Your task to perform on an android device: stop showing notifications on the lock screen Image 0: 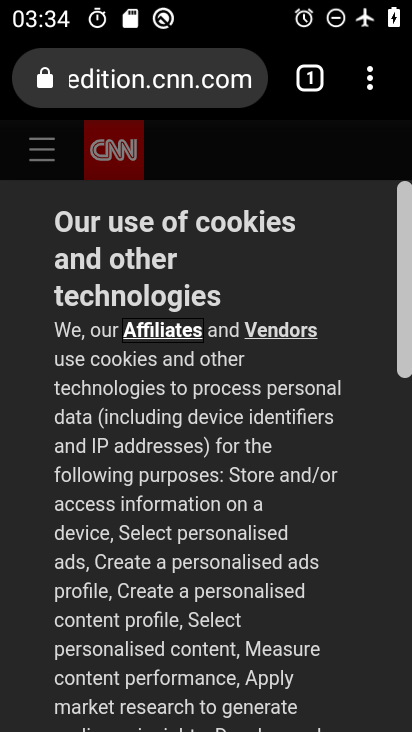
Step 0: press home button
Your task to perform on an android device: stop showing notifications on the lock screen Image 1: 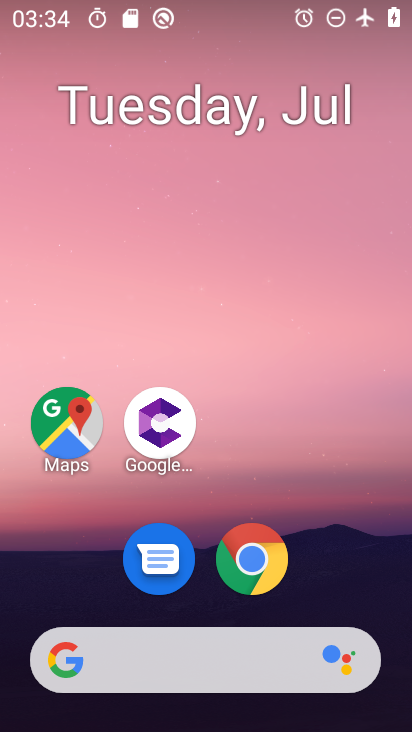
Step 1: drag from (371, 563) to (363, 230)
Your task to perform on an android device: stop showing notifications on the lock screen Image 2: 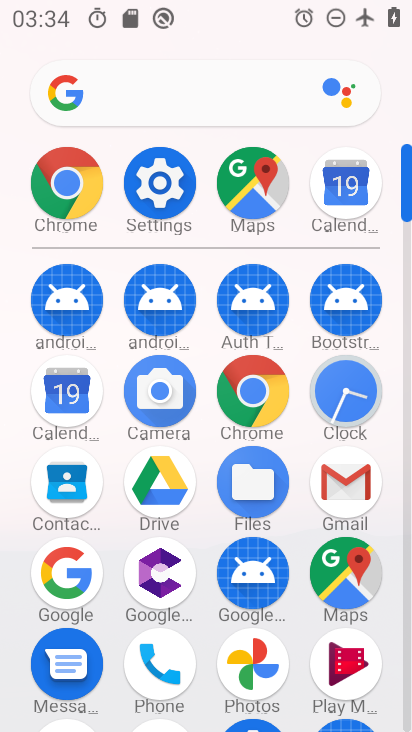
Step 2: click (166, 195)
Your task to perform on an android device: stop showing notifications on the lock screen Image 3: 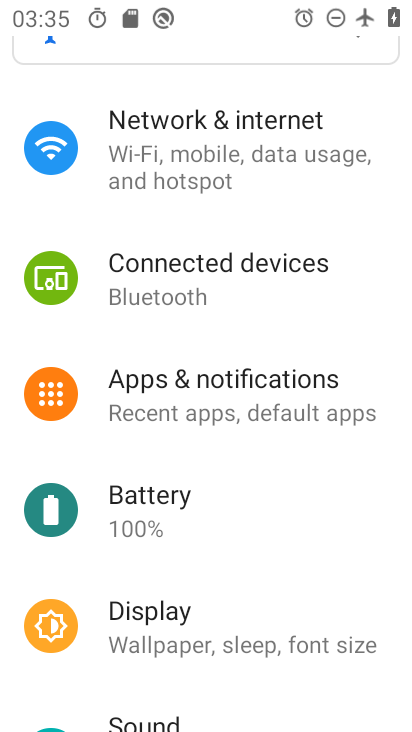
Step 3: drag from (349, 525) to (354, 431)
Your task to perform on an android device: stop showing notifications on the lock screen Image 4: 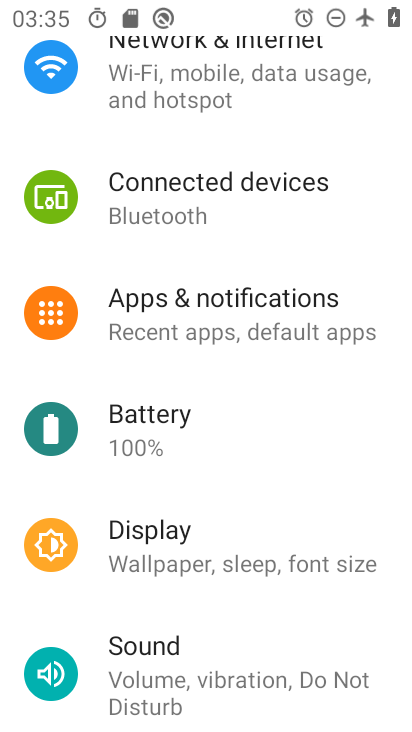
Step 4: drag from (366, 509) to (361, 412)
Your task to perform on an android device: stop showing notifications on the lock screen Image 5: 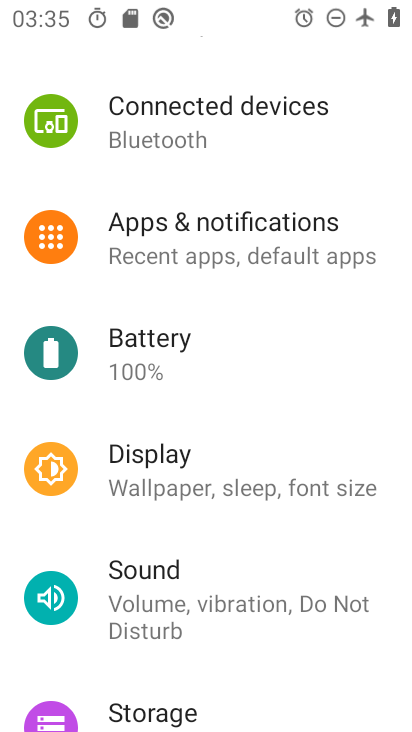
Step 5: drag from (358, 555) to (352, 463)
Your task to perform on an android device: stop showing notifications on the lock screen Image 6: 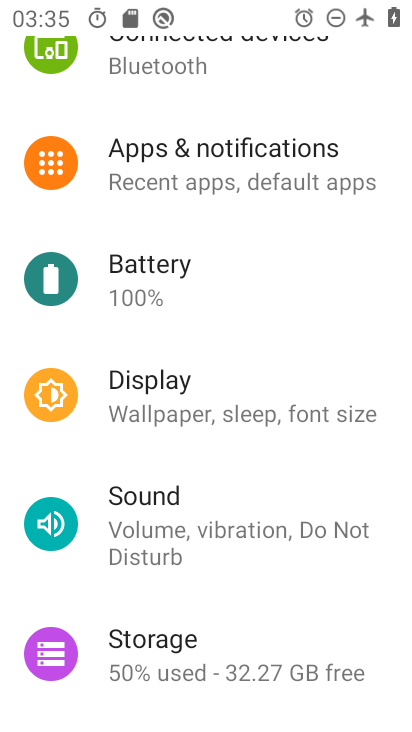
Step 6: drag from (340, 589) to (341, 468)
Your task to perform on an android device: stop showing notifications on the lock screen Image 7: 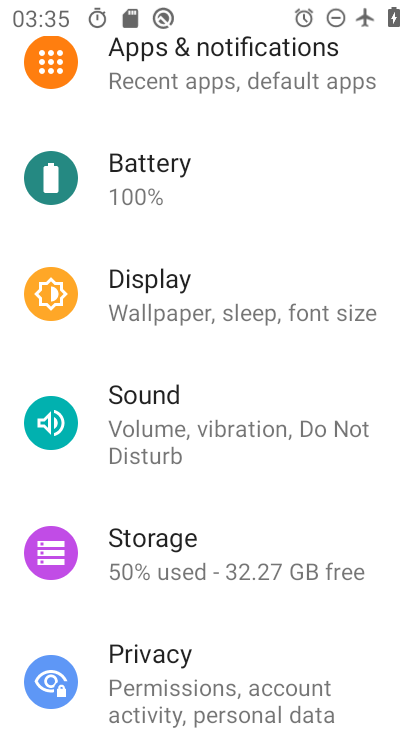
Step 7: drag from (343, 250) to (343, 481)
Your task to perform on an android device: stop showing notifications on the lock screen Image 8: 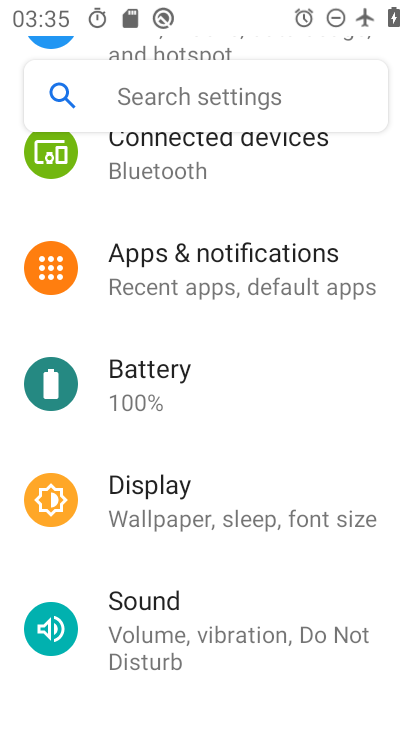
Step 8: click (331, 289)
Your task to perform on an android device: stop showing notifications on the lock screen Image 9: 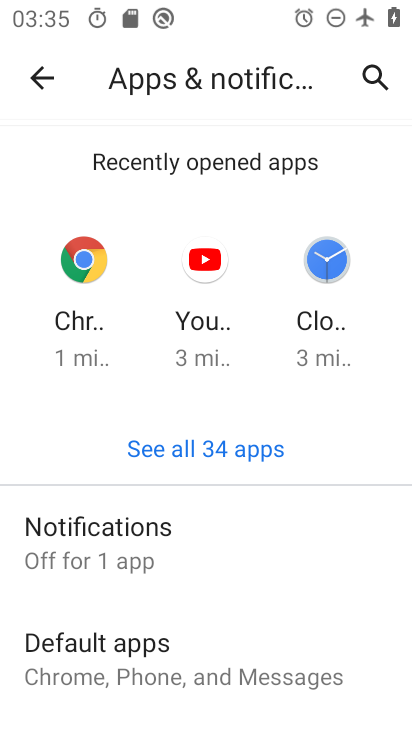
Step 9: click (215, 555)
Your task to perform on an android device: stop showing notifications on the lock screen Image 10: 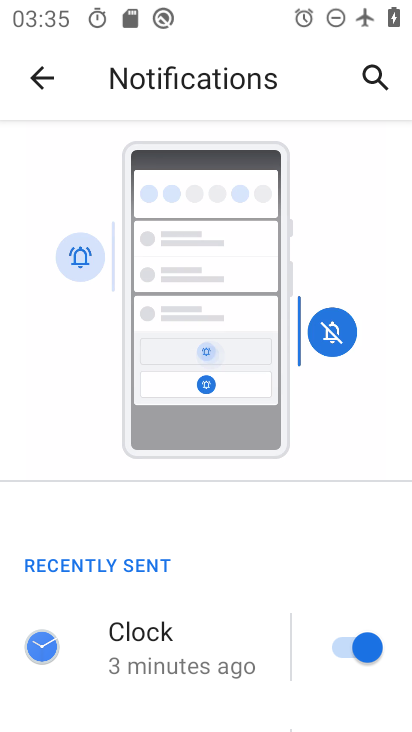
Step 10: drag from (222, 608) to (259, 378)
Your task to perform on an android device: stop showing notifications on the lock screen Image 11: 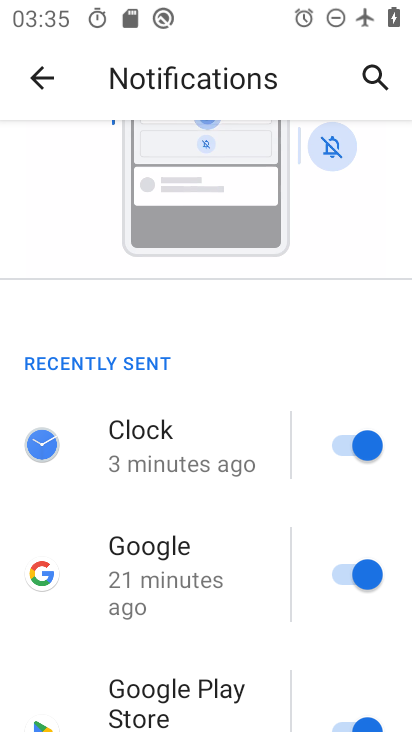
Step 11: drag from (251, 559) to (272, 441)
Your task to perform on an android device: stop showing notifications on the lock screen Image 12: 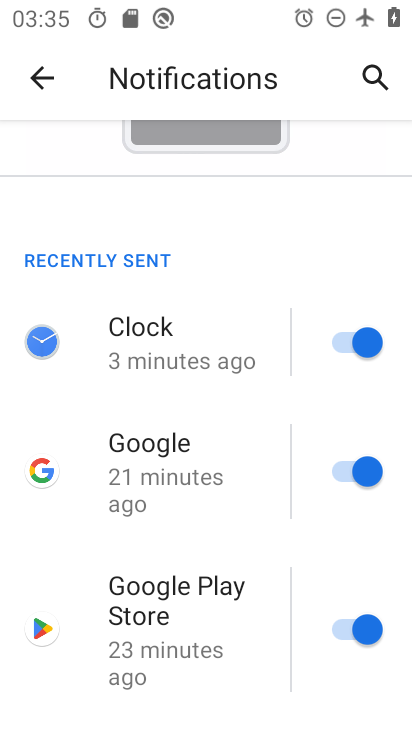
Step 12: drag from (270, 605) to (270, 507)
Your task to perform on an android device: stop showing notifications on the lock screen Image 13: 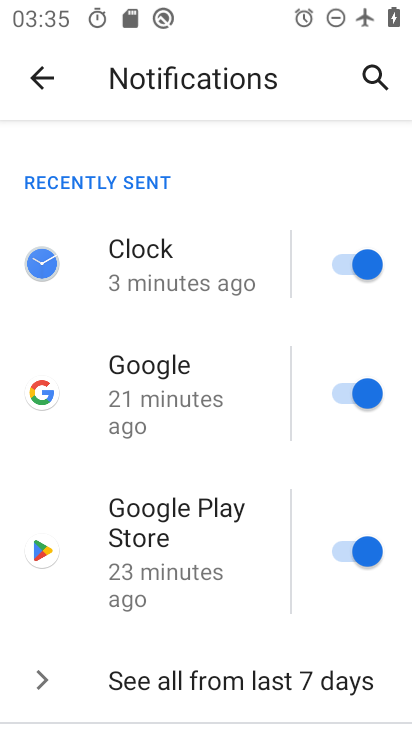
Step 13: drag from (235, 633) to (235, 491)
Your task to perform on an android device: stop showing notifications on the lock screen Image 14: 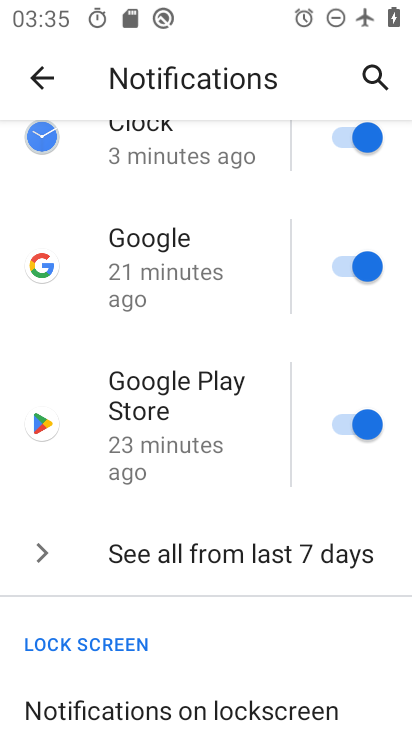
Step 14: drag from (243, 590) to (261, 458)
Your task to perform on an android device: stop showing notifications on the lock screen Image 15: 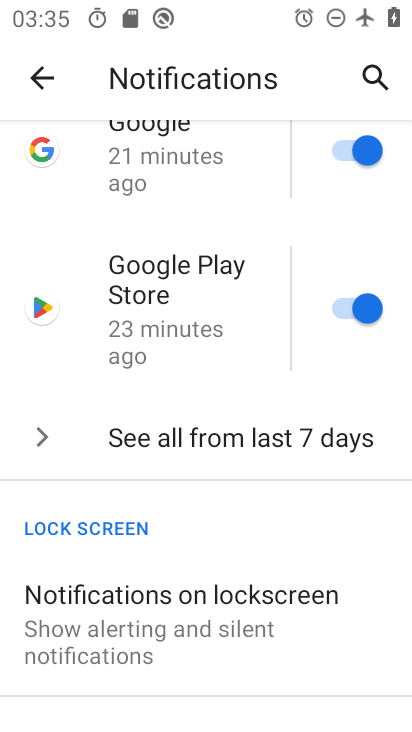
Step 15: click (265, 601)
Your task to perform on an android device: stop showing notifications on the lock screen Image 16: 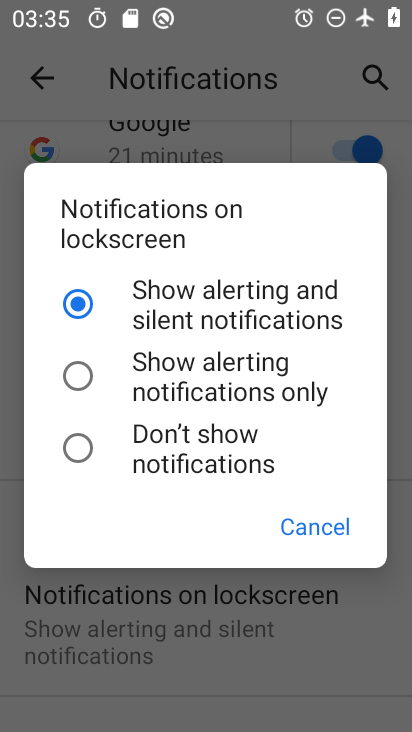
Step 16: click (232, 448)
Your task to perform on an android device: stop showing notifications on the lock screen Image 17: 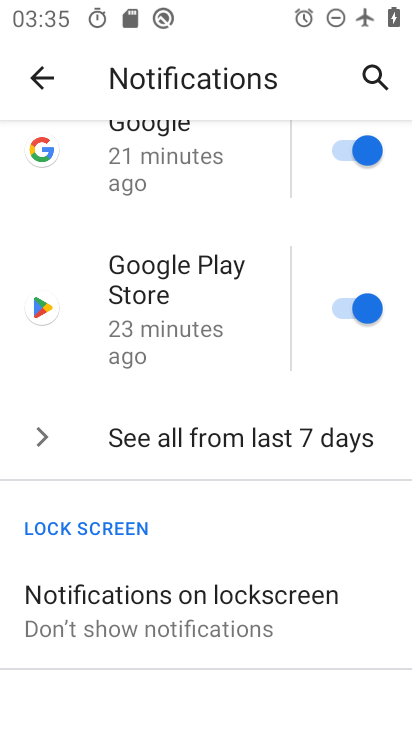
Step 17: click (259, 609)
Your task to perform on an android device: stop showing notifications on the lock screen Image 18: 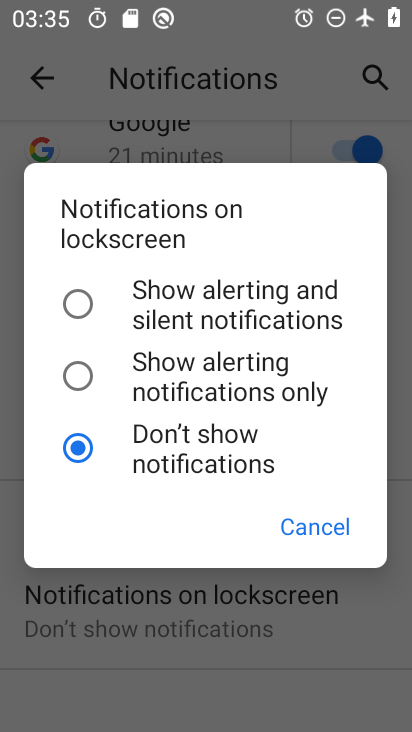
Step 18: task complete